Your task to perform on an android device: Go to Yahoo.com Image 0: 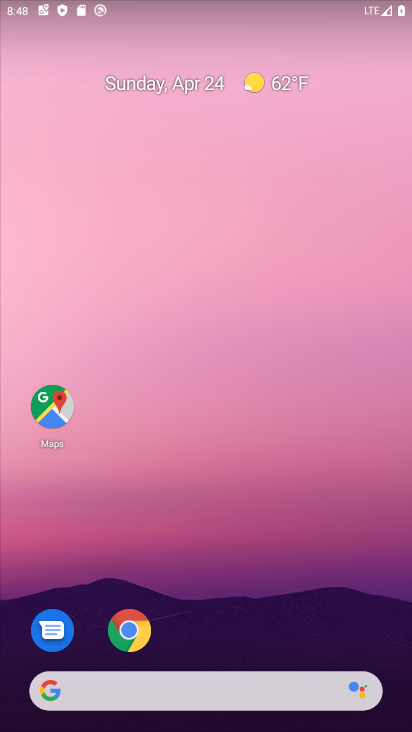
Step 0: drag from (249, 577) to (123, 3)
Your task to perform on an android device: Go to Yahoo.com Image 1: 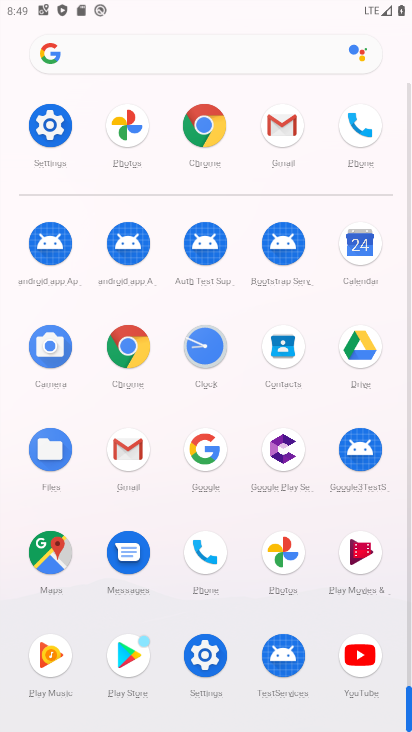
Step 1: drag from (2, 544) to (0, 594)
Your task to perform on an android device: Go to Yahoo.com Image 2: 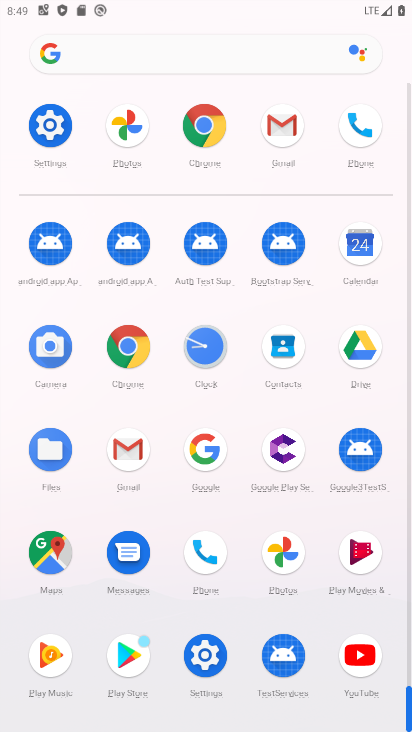
Step 2: drag from (7, 478) to (0, 251)
Your task to perform on an android device: Go to Yahoo.com Image 3: 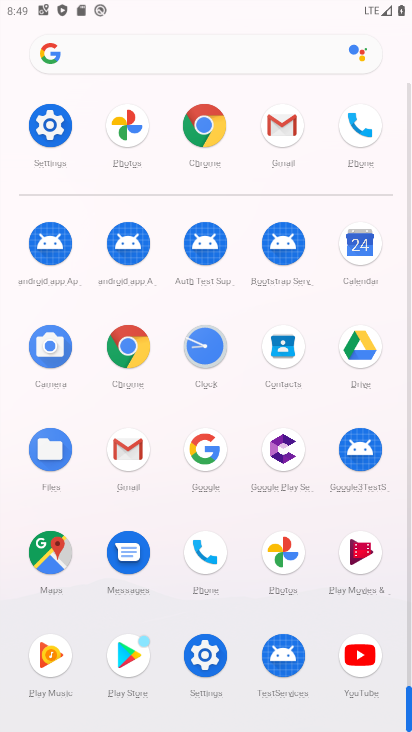
Step 3: click (126, 339)
Your task to perform on an android device: Go to Yahoo.com Image 4: 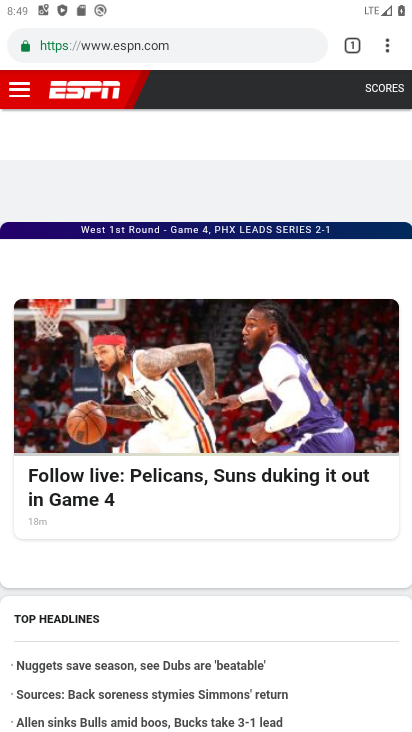
Step 4: click (153, 37)
Your task to perform on an android device: Go to Yahoo.com Image 5: 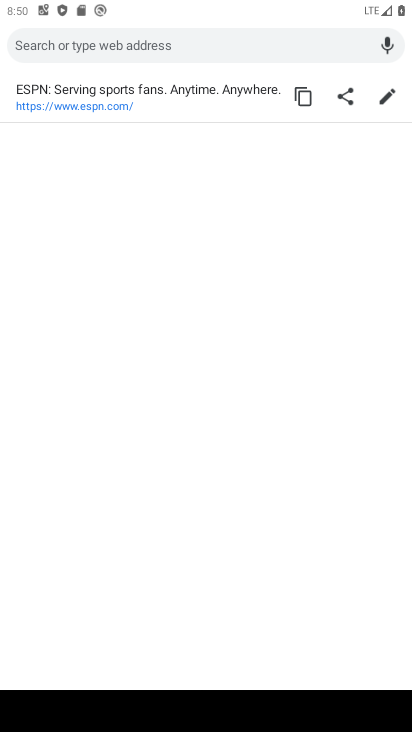
Step 5: type "Yahoo.com"
Your task to perform on an android device: Go to Yahoo.com Image 6: 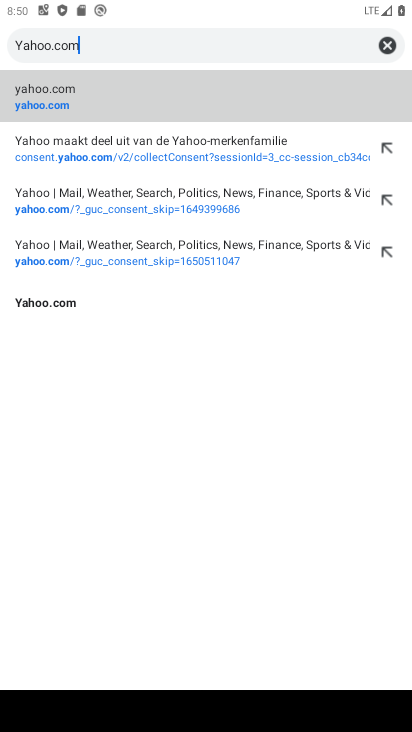
Step 6: type ""
Your task to perform on an android device: Go to Yahoo.com Image 7: 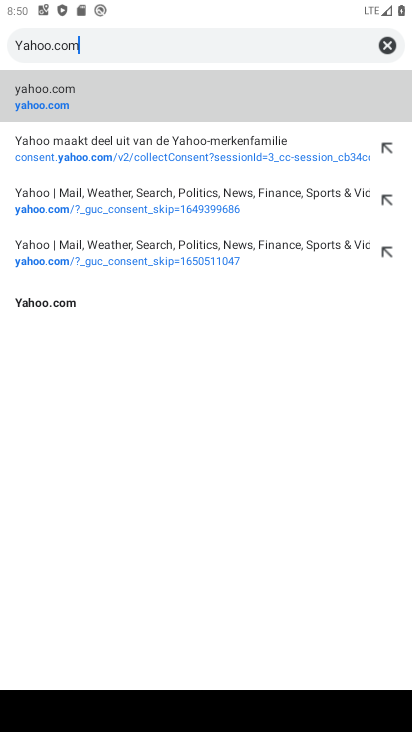
Step 7: click (135, 87)
Your task to perform on an android device: Go to Yahoo.com Image 8: 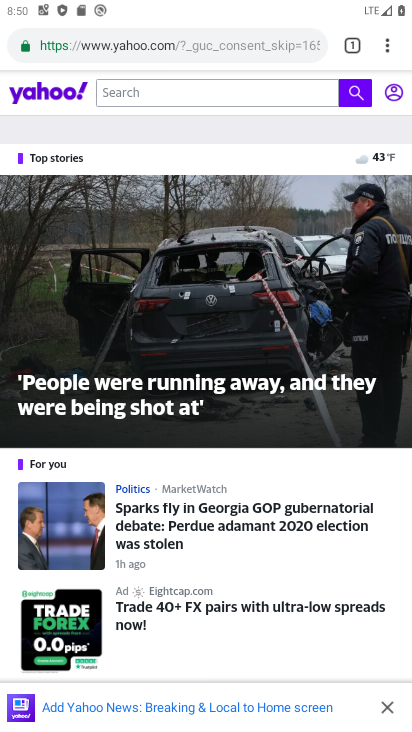
Step 8: task complete